Your task to perform on an android device: Show the shopping cart on costco. Search for "apple airpods pro" on costco, select the first entry, and add it to the cart. Image 0: 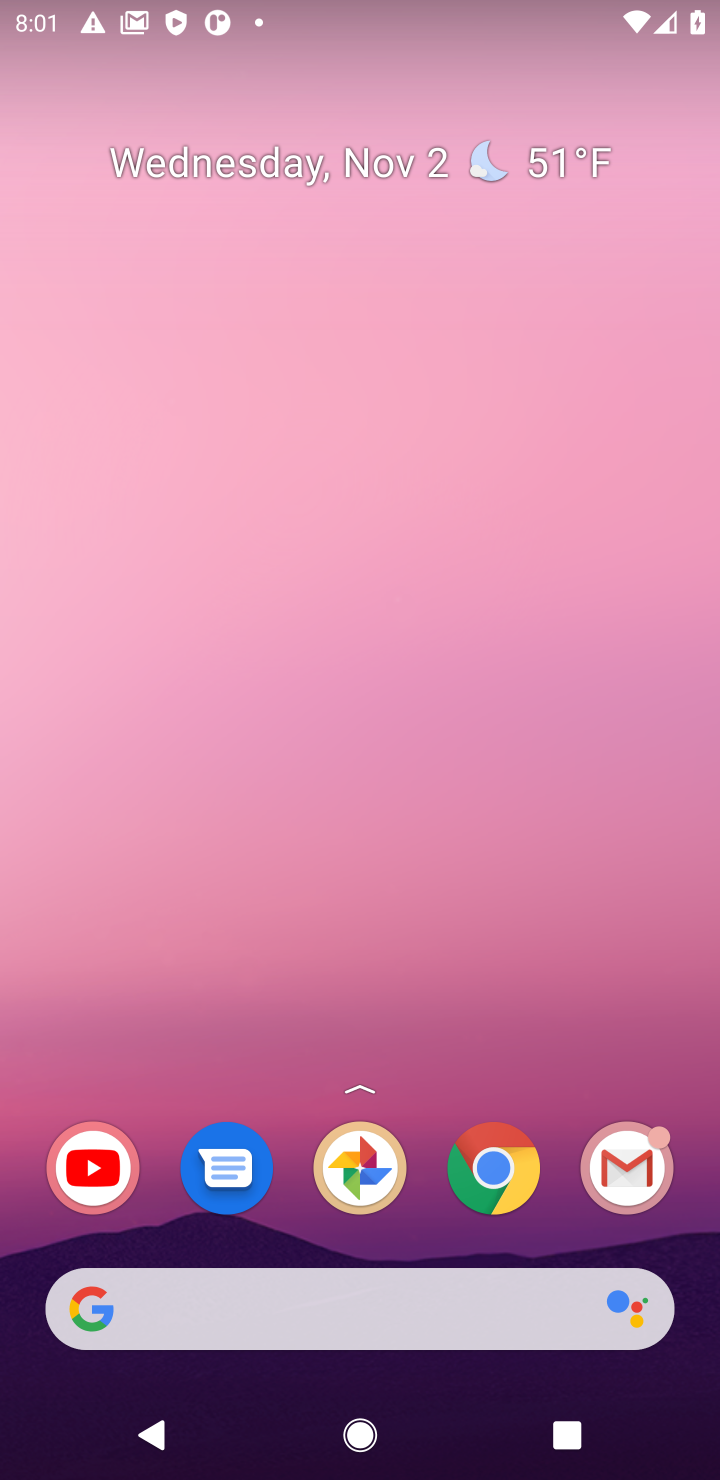
Step 0: press home button
Your task to perform on an android device: Show the shopping cart on costco. Search for "apple airpods pro" on costco, select the first entry, and add it to the cart. Image 1: 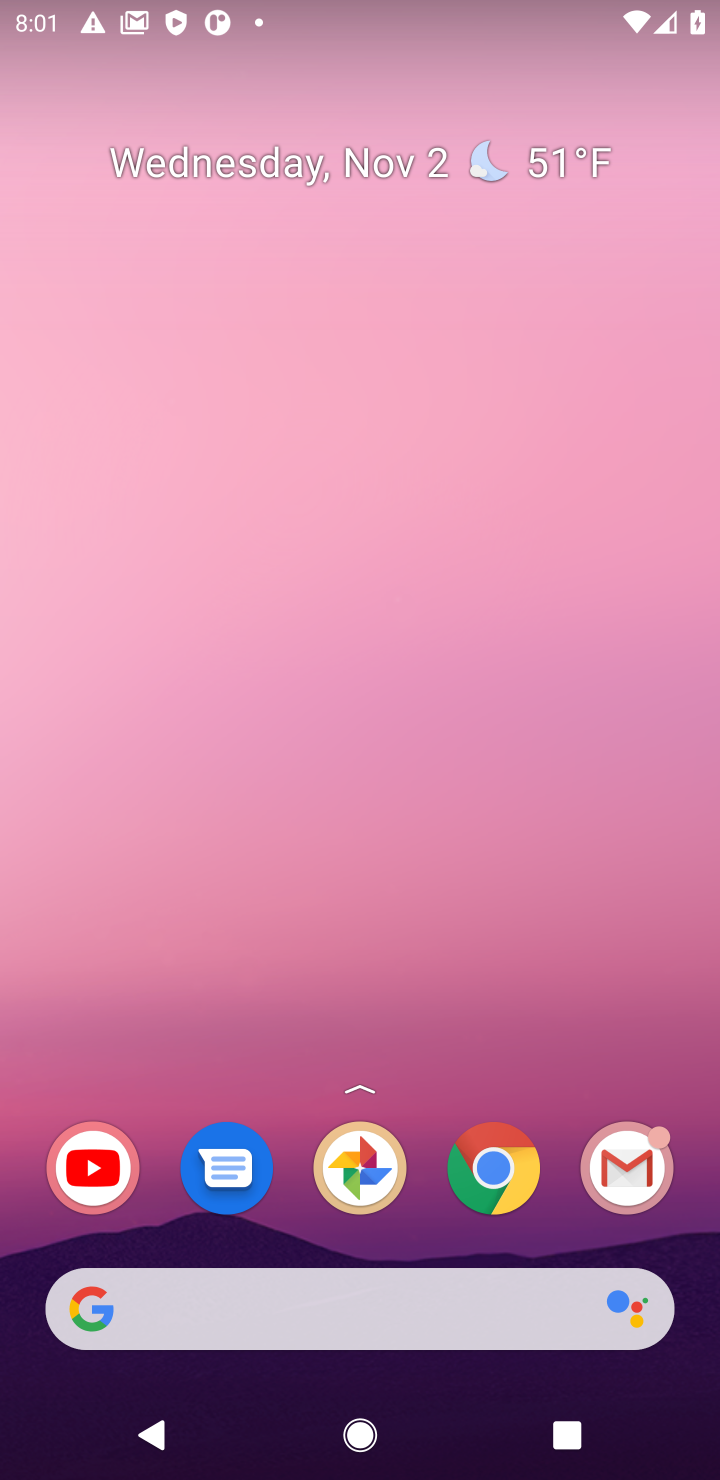
Step 1: drag from (413, 1099) to (471, 65)
Your task to perform on an android device: Show the shopping cart on costco. Search for "apple airpods pro" on costco, select the first entry, and add it to the cart. Image 2: 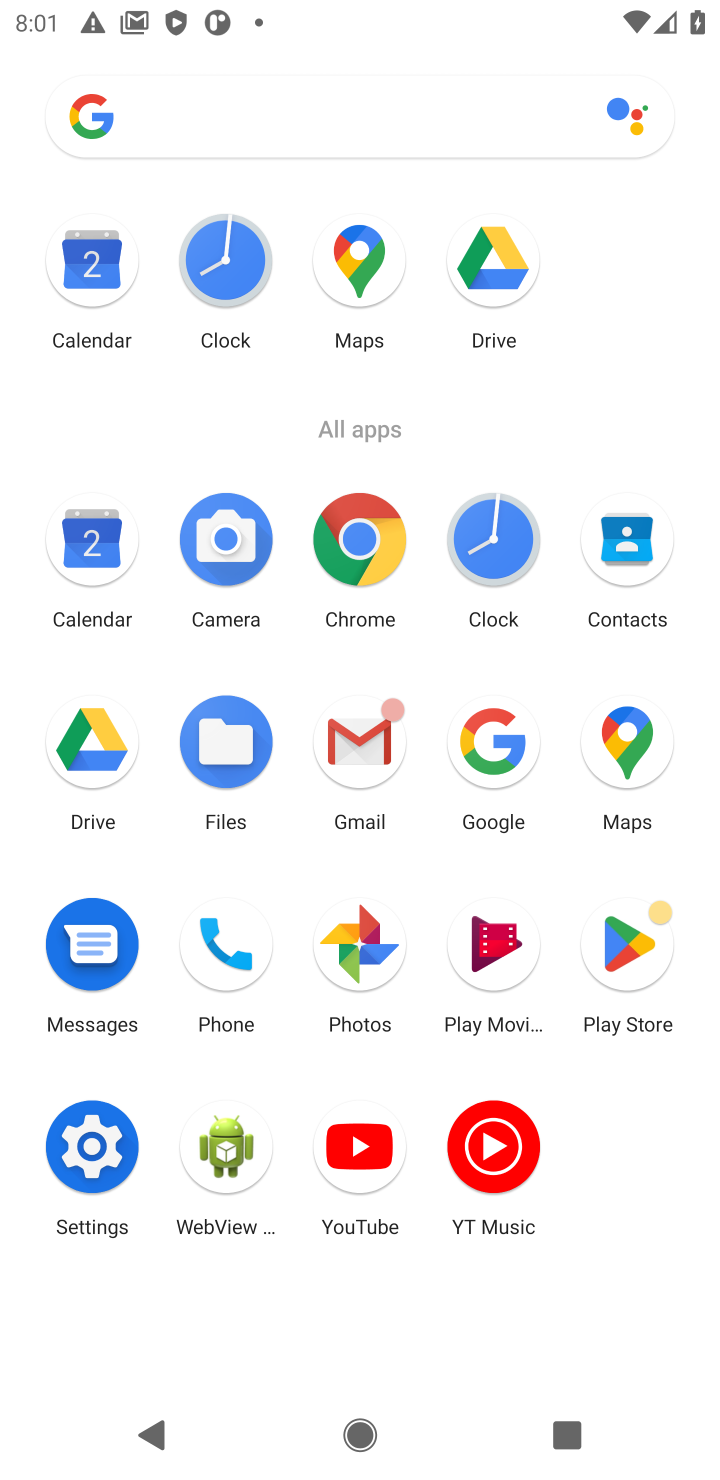
Step 2: click (358, 533)
Your task to perform on an android device: Show the shopping cart on costco. Search for "apple airpods pro" on costco, select the first entry, and add it to the cart. Image 3: 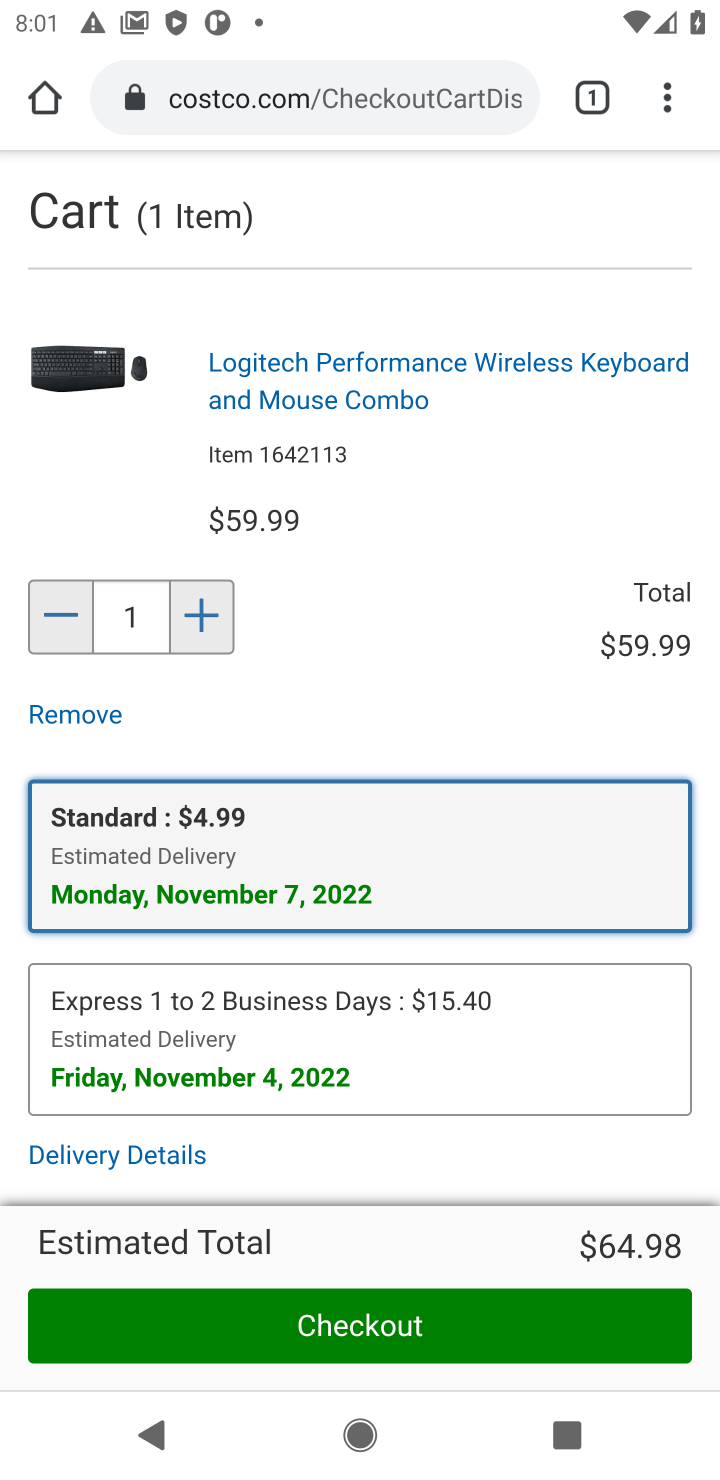
Step 3: click (69, 622)
Your task to perform on an android device: Show the shopping cart on costco. Search for "apple airpods pro" on costco, select the first entry, and add it to the cart. Image 4: 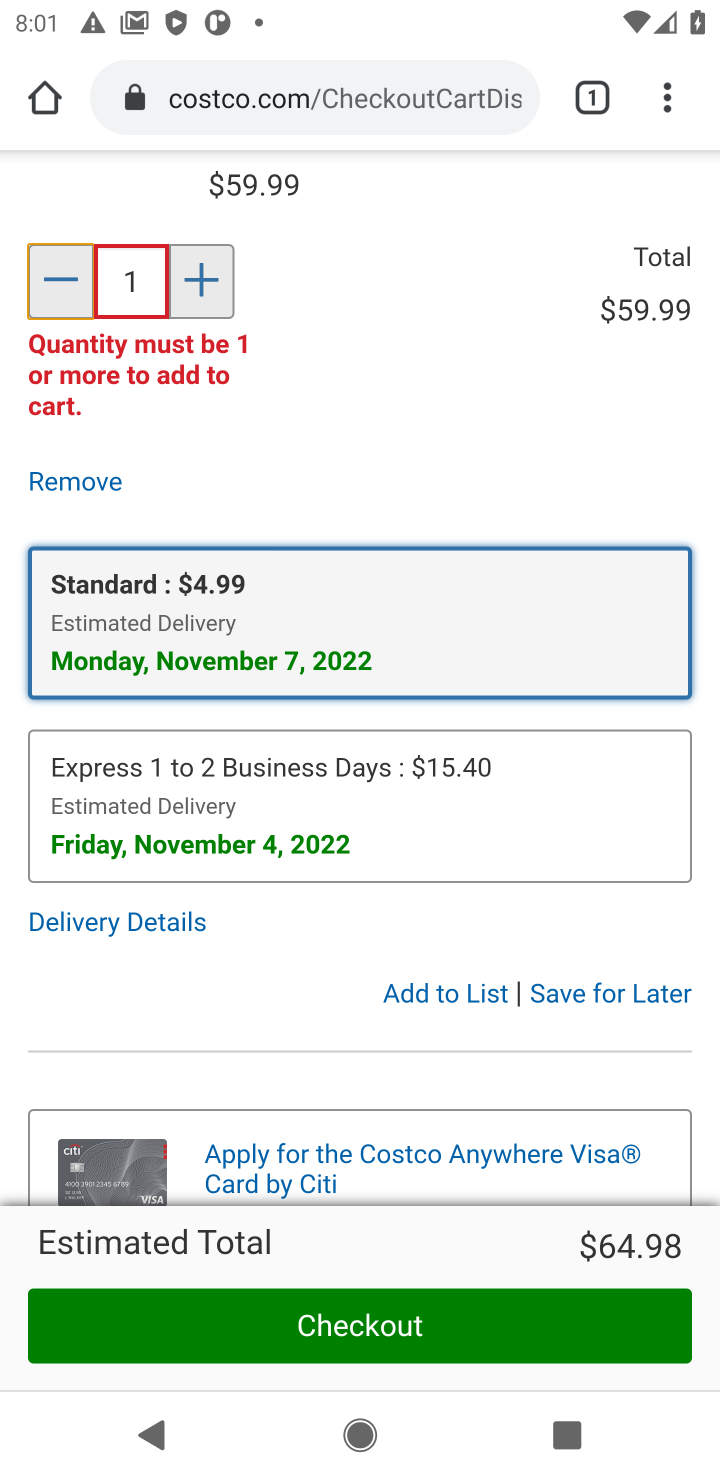
Step 4: click (76, 483)
Your task to perform on an android device: Show the shopping cart on costco. Search for "apple airpods pro" on costco, select the first entry, and add it to the cart. Image 5: 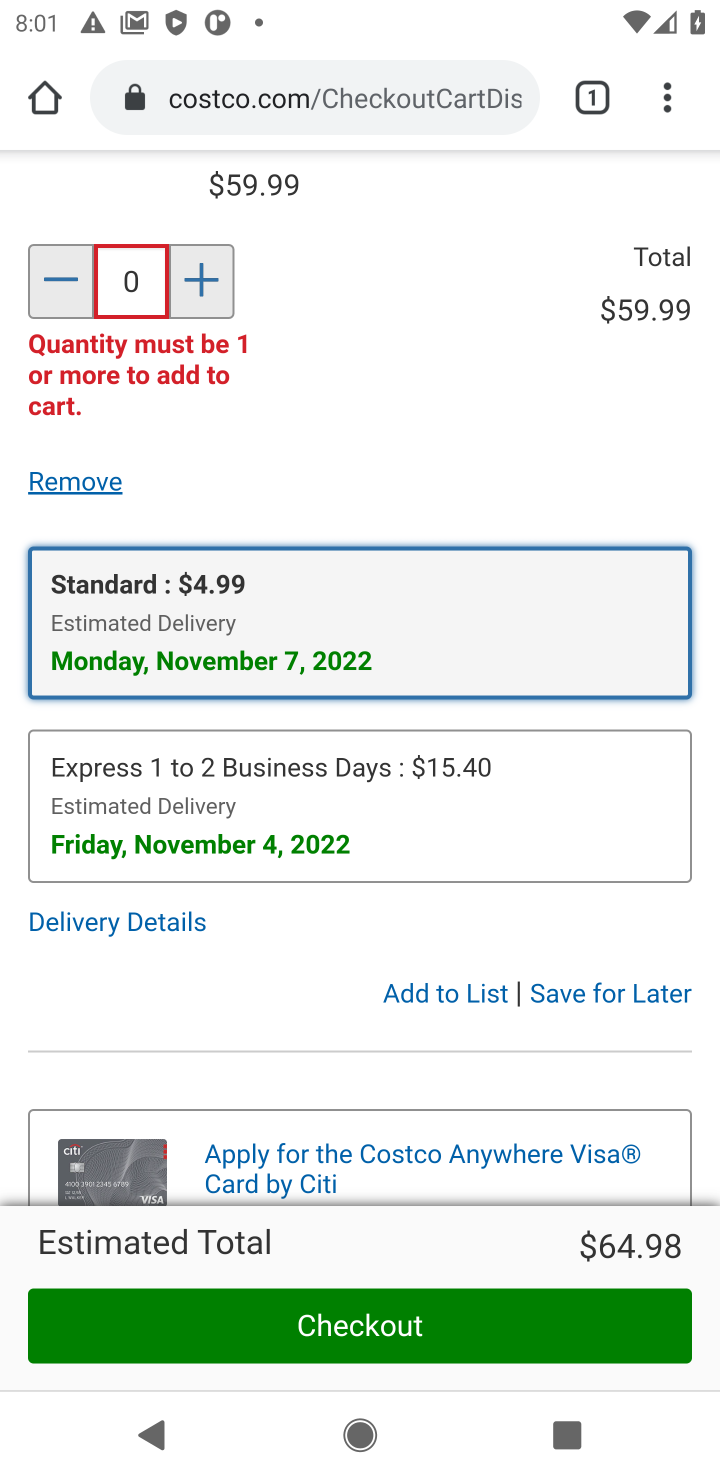
Step 5: drag from (462, 305) to (477, 1175)
Your task to perform on an android device: Show the shopping cart on costco. Search for "apple airpods pro" on costco, select the first entry, and add it to the cart. Image 6: 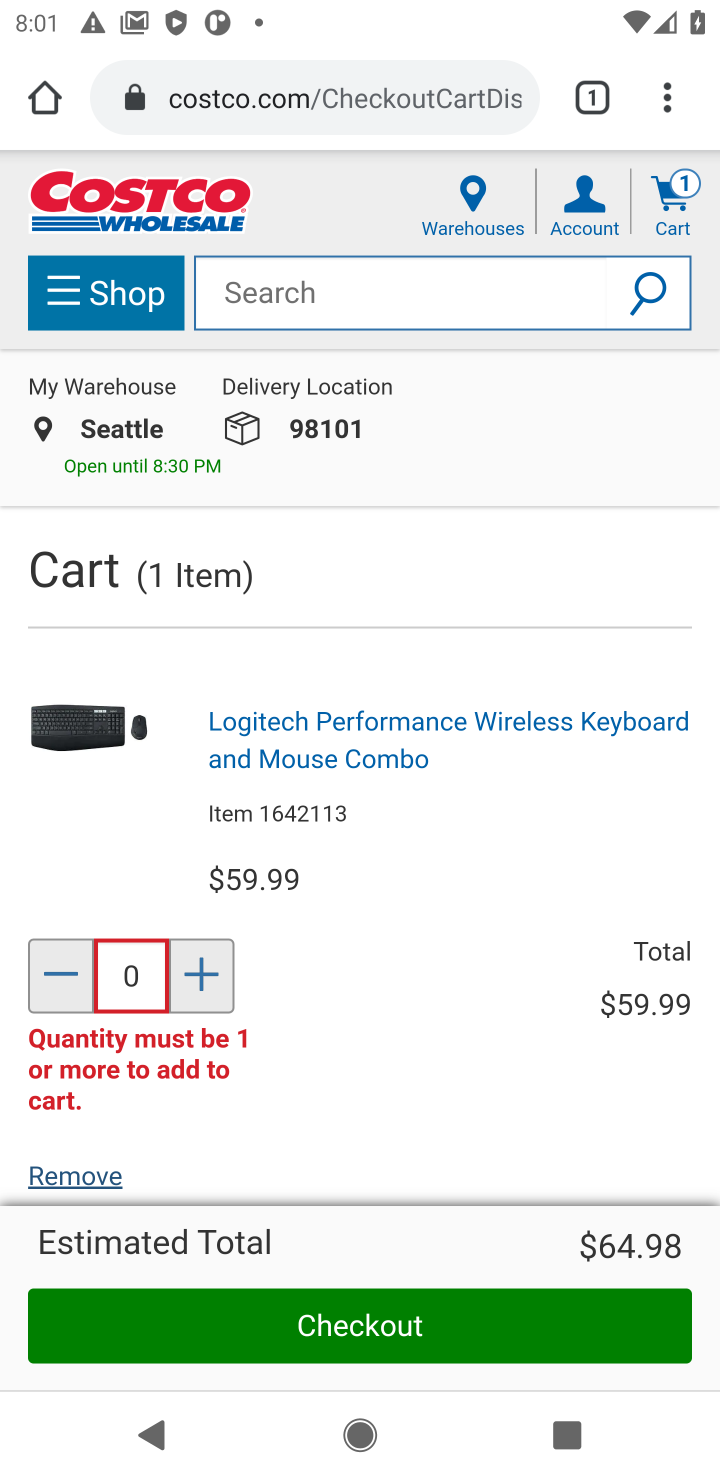
Step 6: click (285, 294)
Your task to perform on an android device: Show the shopping cart on costco. Search for "apple airpods pro" on costco, select the first entry, and add it to the cart. Image 7: 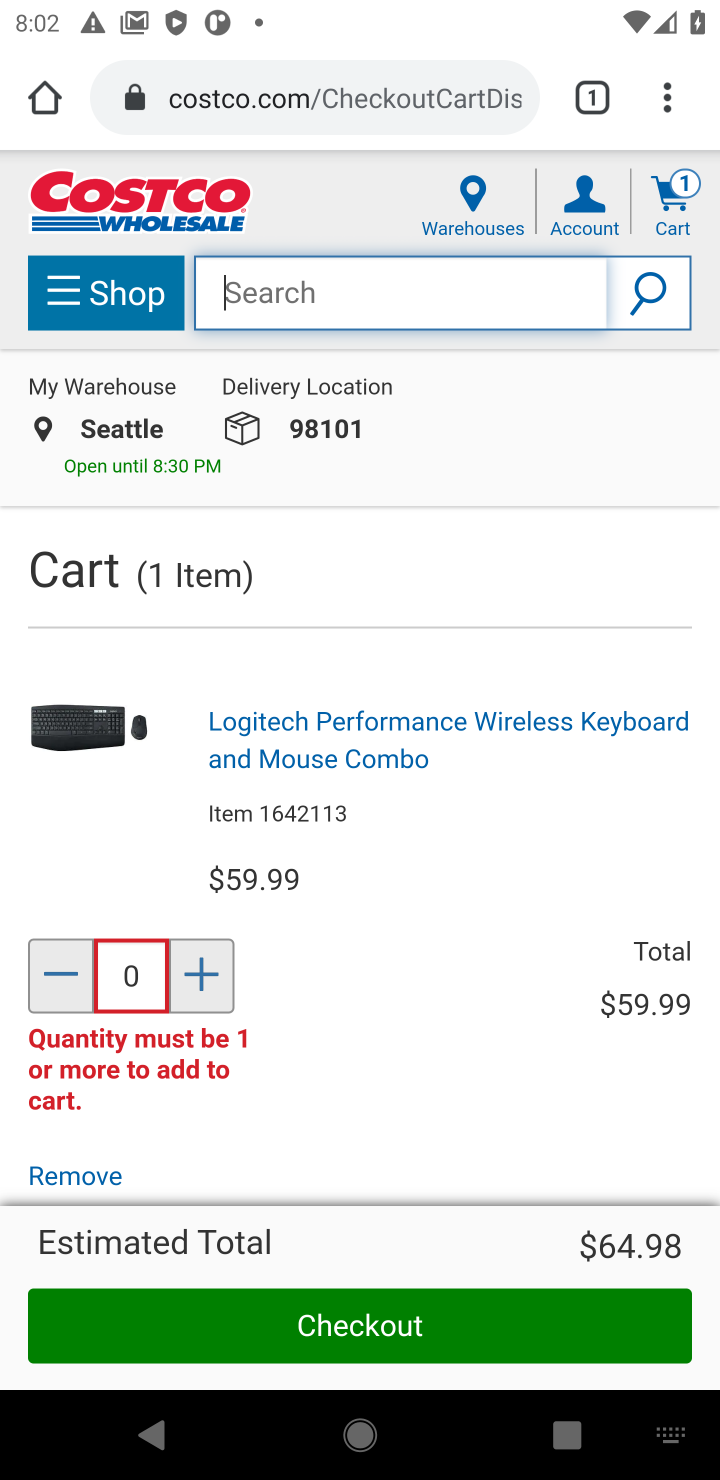
Step 7: type "apple airpods pro"
Your task to perform on an android device: Show the shopping cart on costco. Search for "apple airpods pro" on costco, select the first entry, and add it to the cart. Image 8: 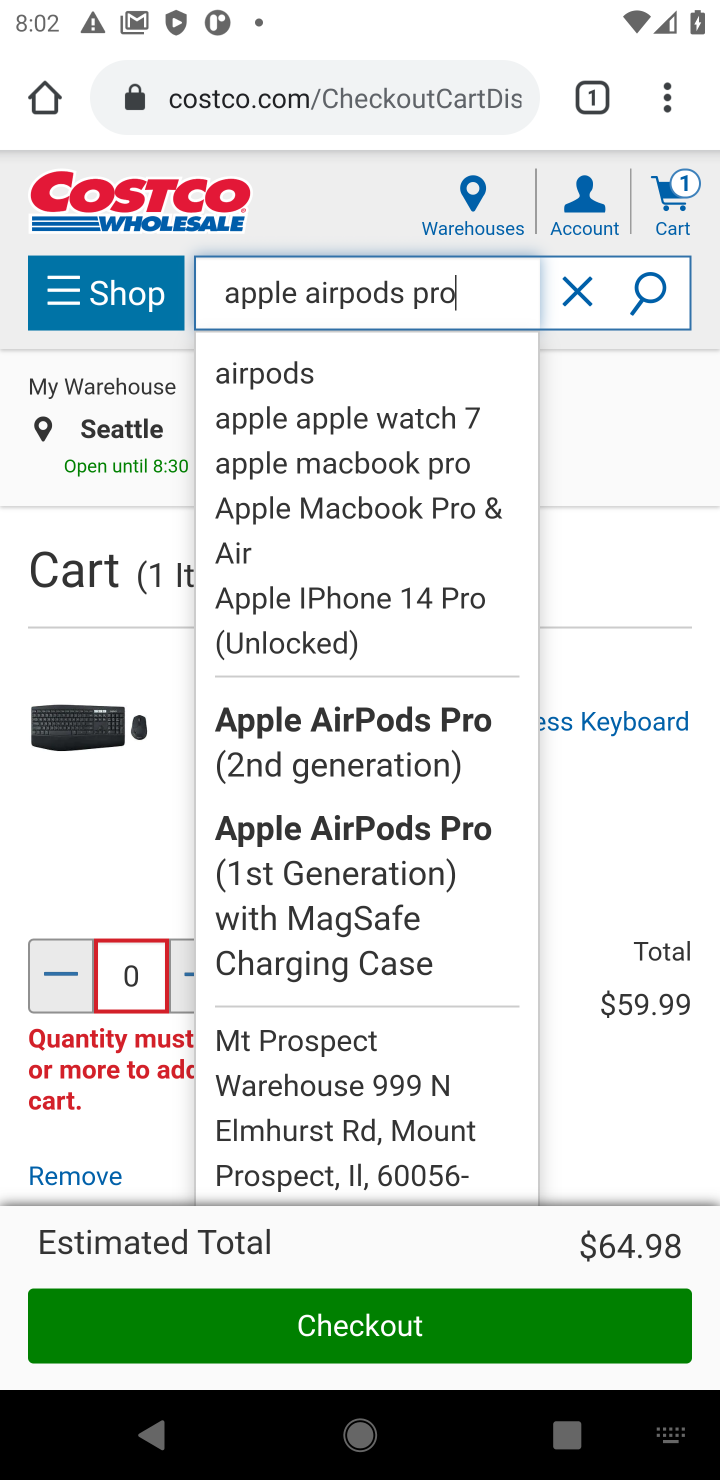
Step 8: click (656, 289)
Your task to perform on an android device: Show the shopping cart on costco. Search for "apple airpods pro" on costco, select the first entry, and add it to the cart. Image 9: 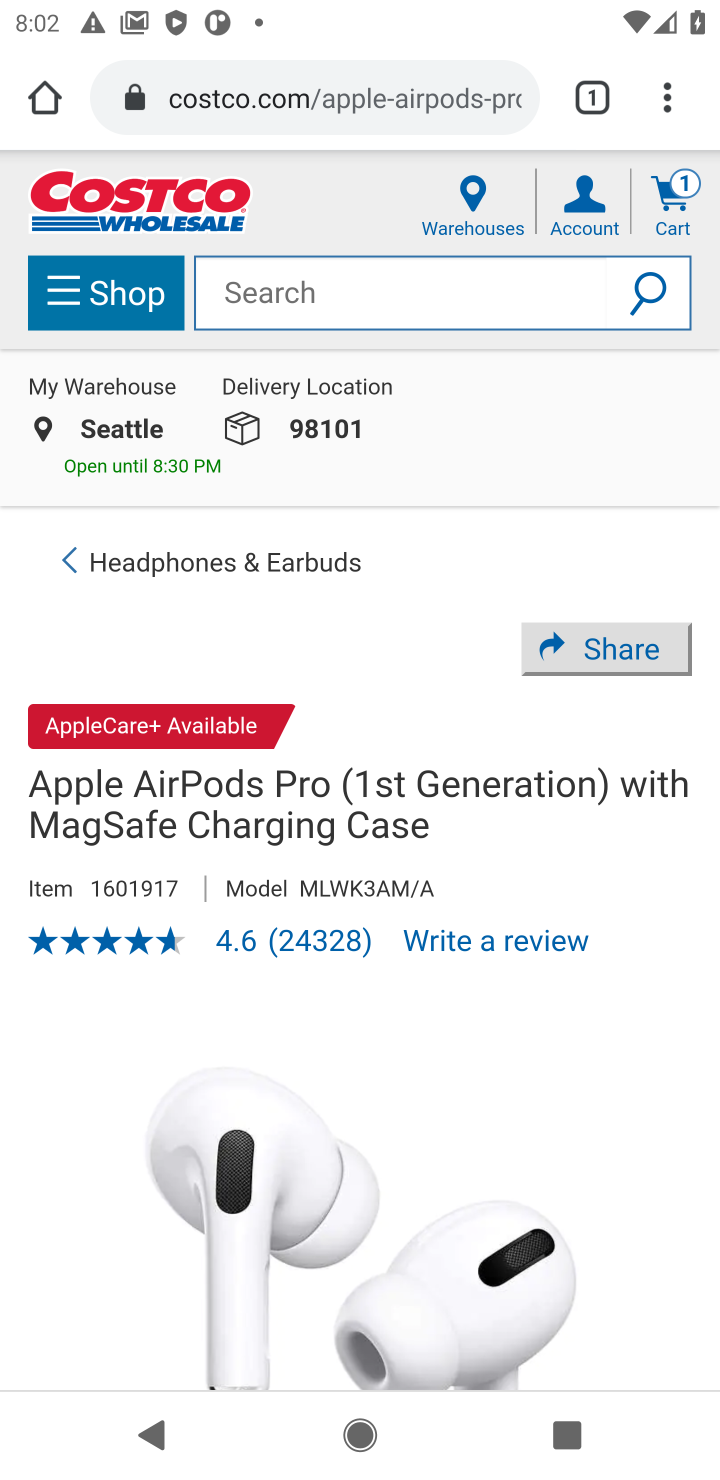
Step 9: drag from (614, 728) to (624, 357)
Your task to perform on an android device: Show the shopping cart on costco. Search for "apple airpods pro" on costco, select the first entry, and add it to the cart. Image 10: 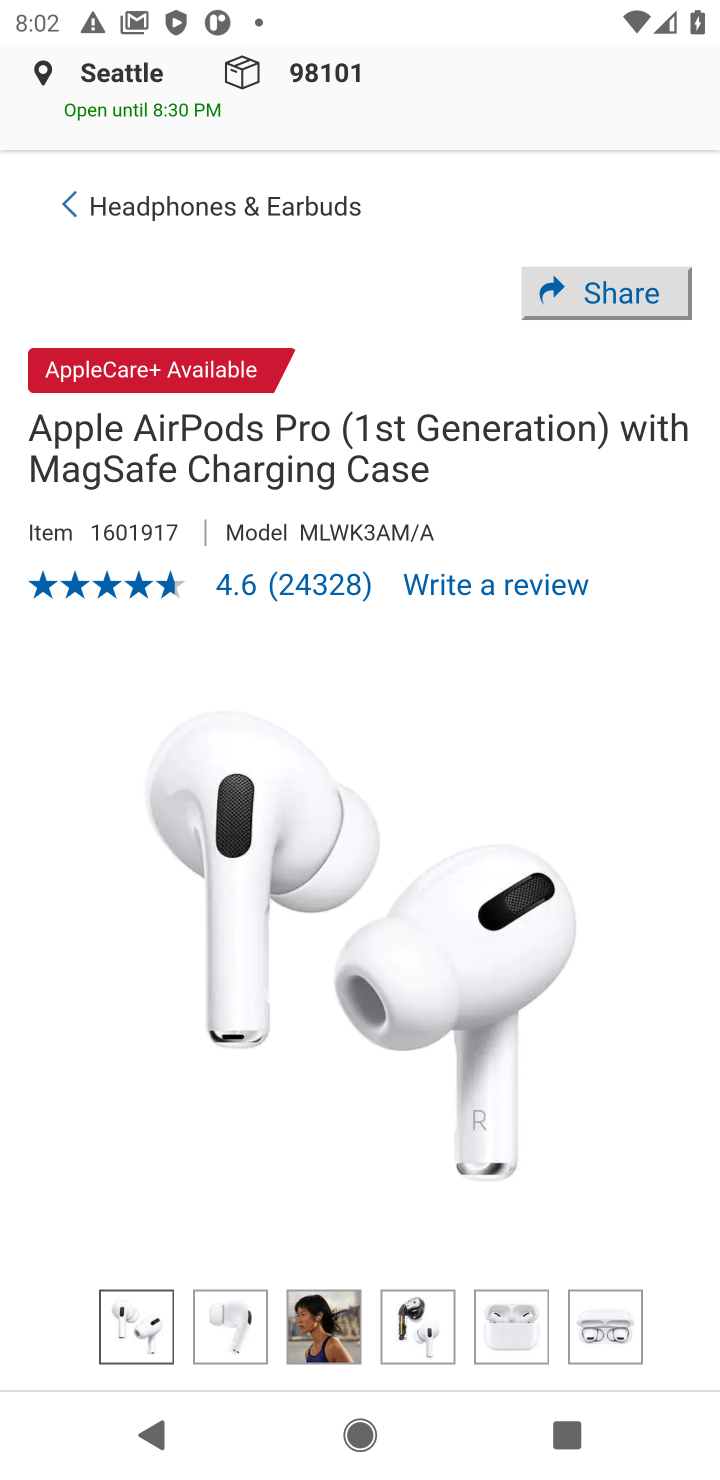
Step 10: drag from (619, 1234) to (617, 358)
Your task to perform on an android device: Show the shopping cart on costco. Search for "apple airpods pro" on costco, select the first entry, and add it to the cart. Image 11: 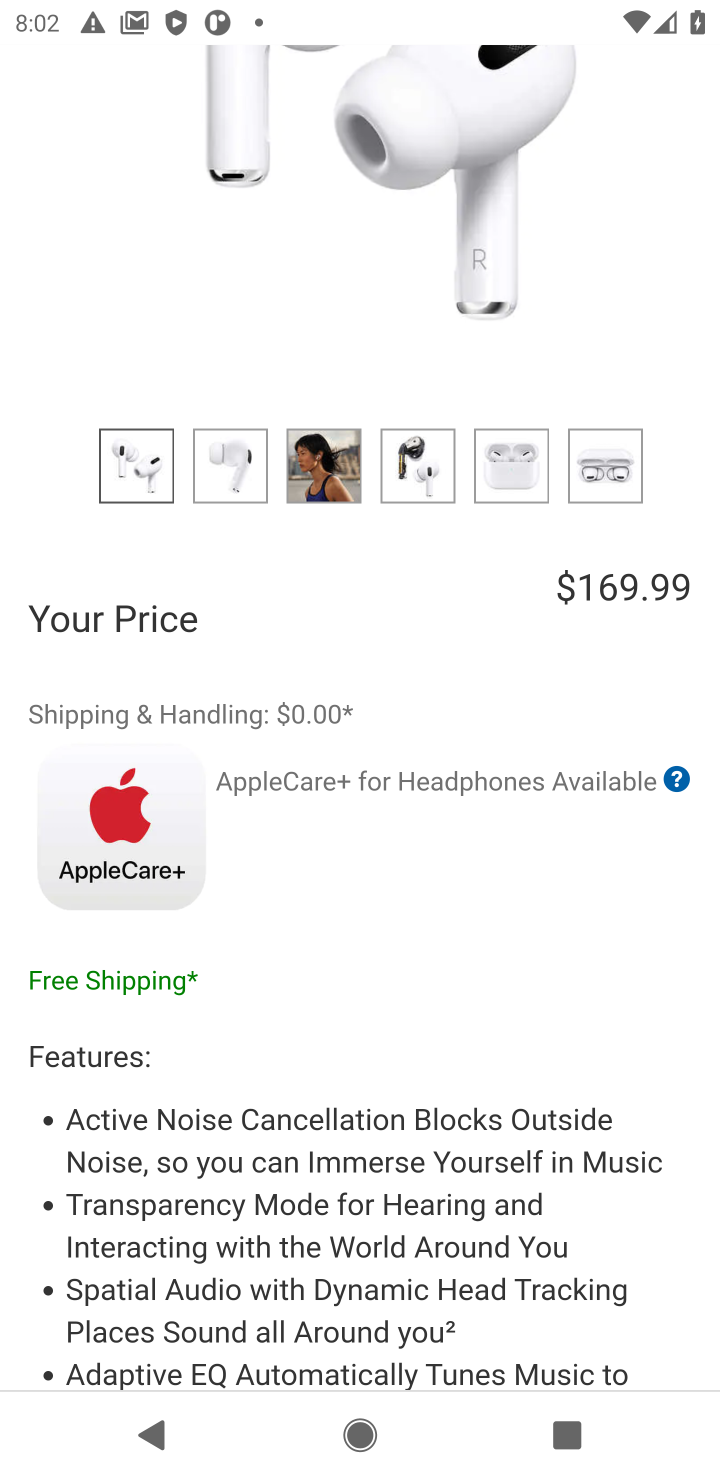
Step 11: drag from (485, 1257) to (511, 445)
Your task to perform on an android device: Show the shopping cart on costco. Search for "apple airpods pro" on costco, select the first entry, and add it to the cart. Image 12: 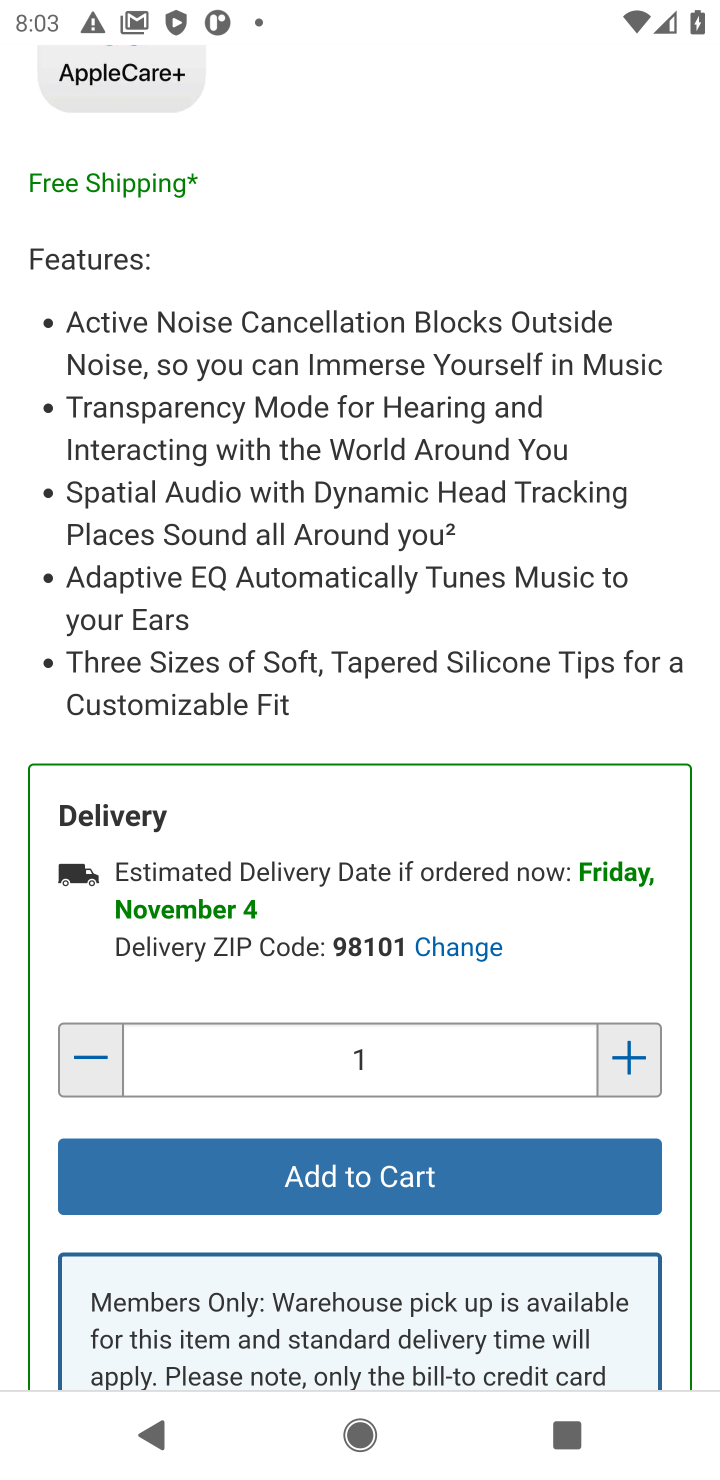
Step 12: click (370, 1175)
Your task to perform on an android device: Show the shopping cart on costco. Search for "apple airpods pro" on costco, select the first entry, and add it to the cart. Image 13: 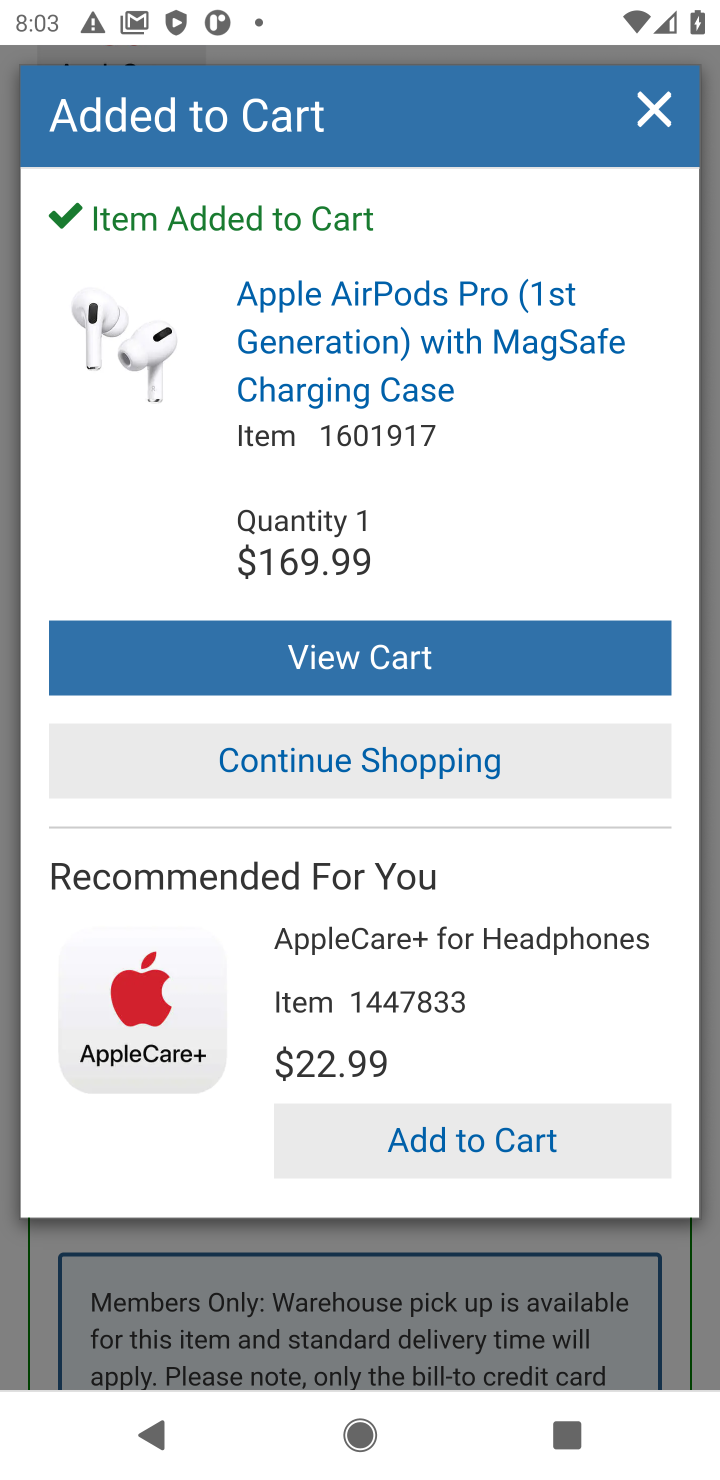
Step 13: click (366, 653)
Your task to perform on an android device: Show the shopping cart on costco. Search for "apple airpods pro" on costco, select the first entry, and add it to the cart. Image 14: 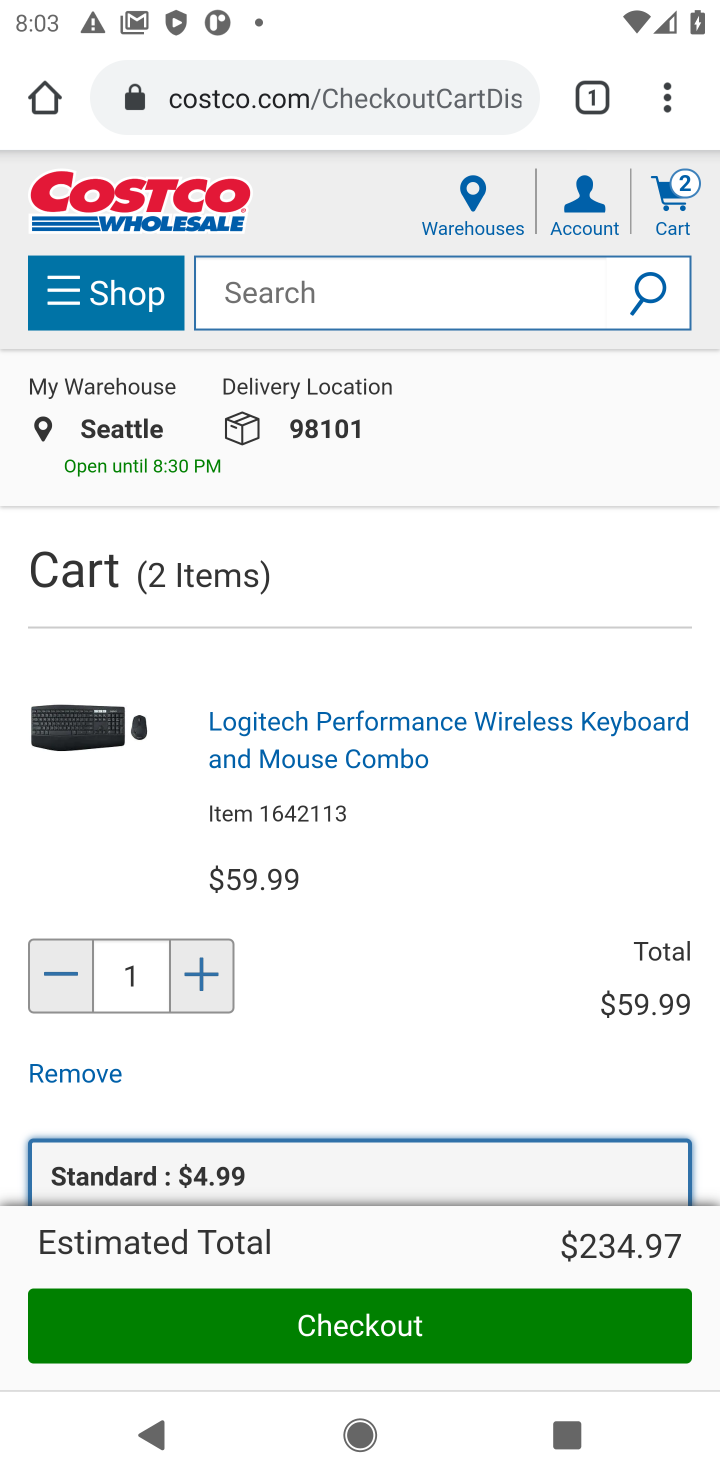
Step 14: drag from (357, 1101) to (411, 525)
Your task to perform on an android device: Show the shopping cart on costco. Search for "apple airpods pro" on costco, select the first entry, and add it to the cart. Image 15: 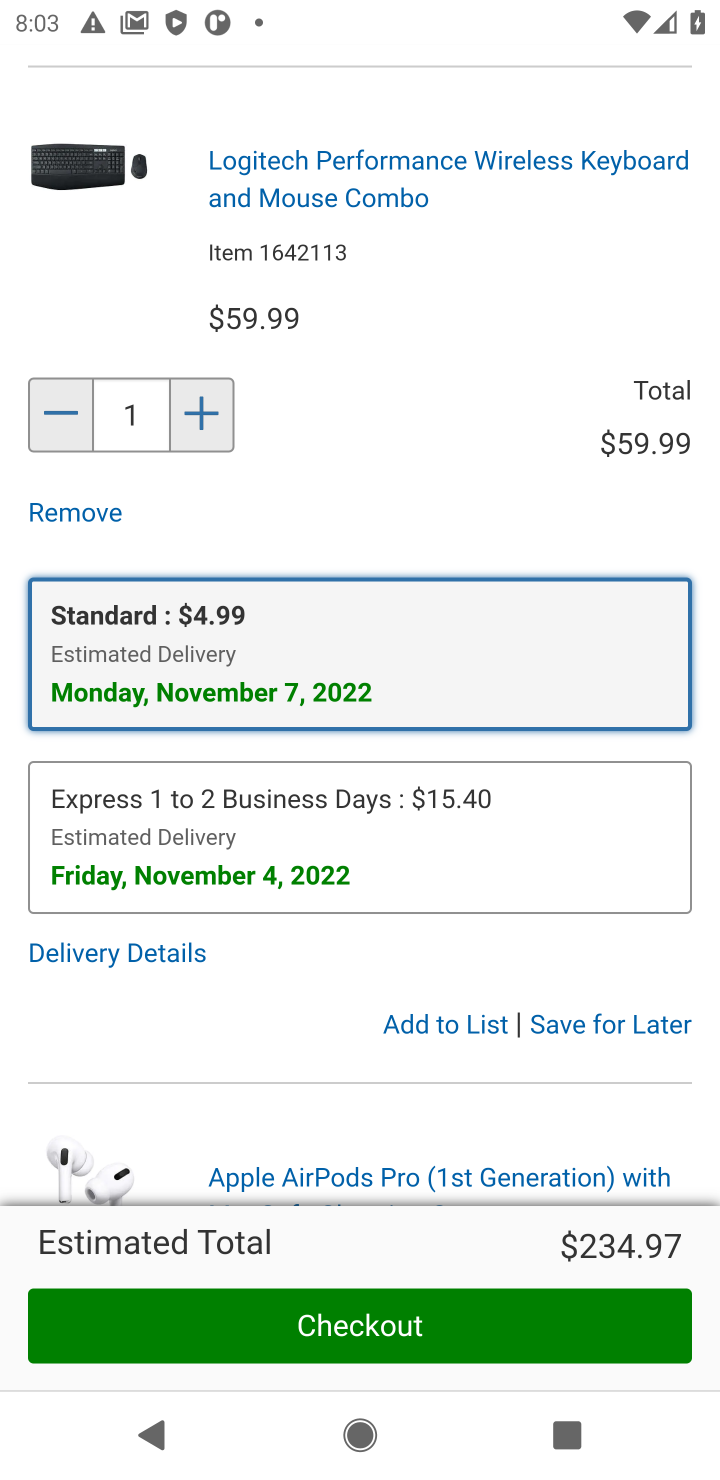
Step 15: click (365, 1323)
Your task to perform on an android device: Show the shopping cart on costco. Search for "apple airpods pro" on costco, select the first entry, and add it to the cart. Image 16: 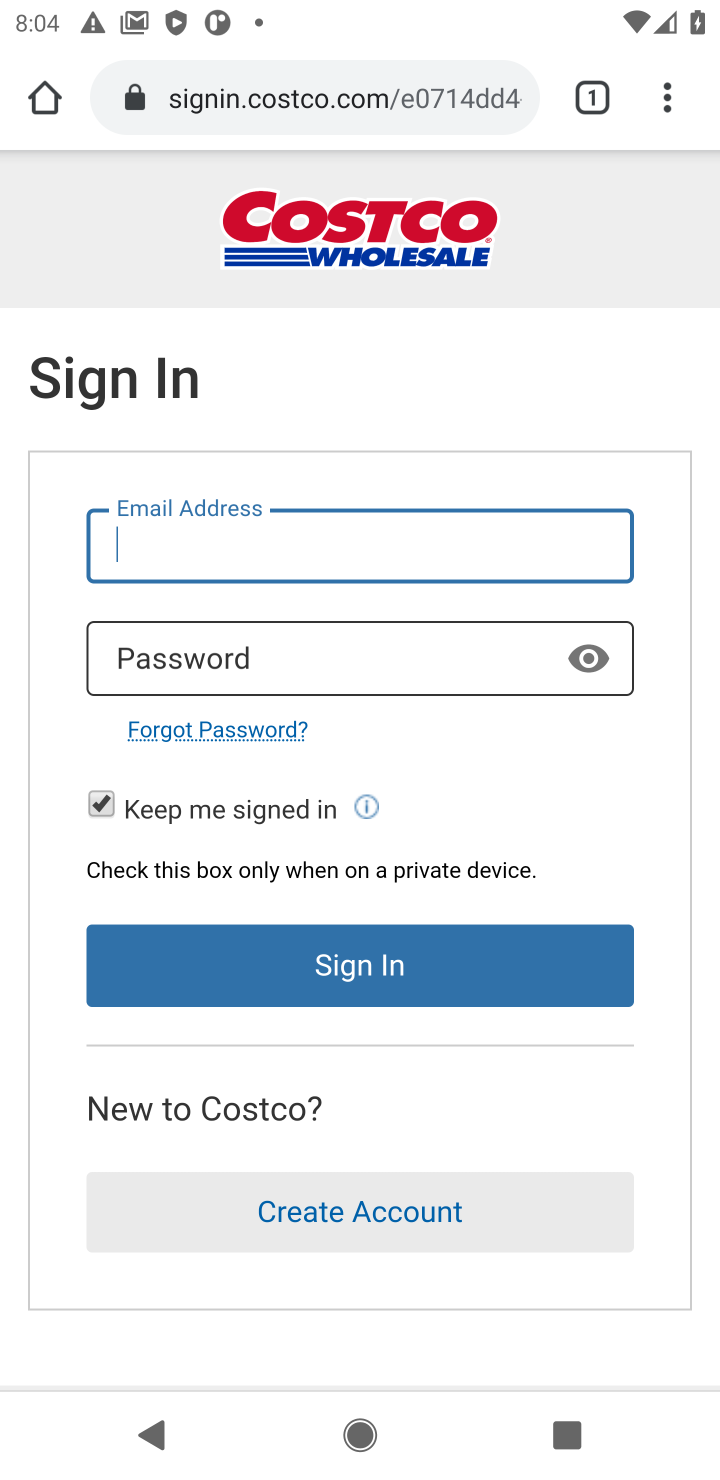
Step 16: task complete